Your task to perform on an android device: turn off wifi Image 0: 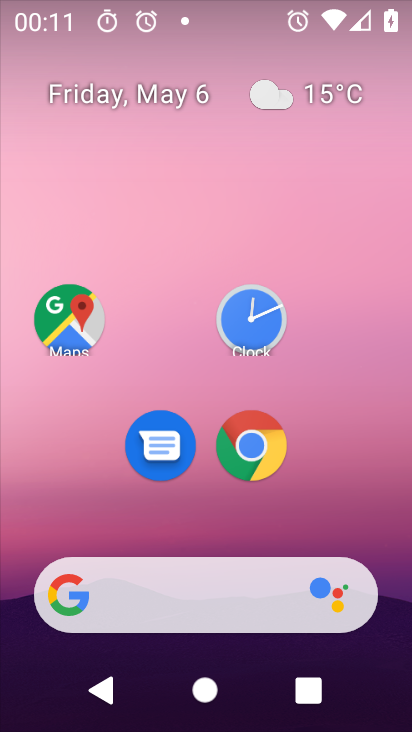
Step 0: drag from (237, 578) to (232, 227)
Your task to perform on an android device: turn off wifi Image 1: 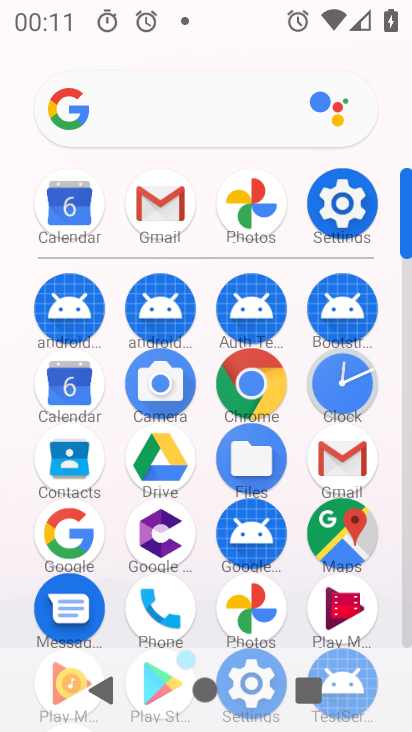
Step 1: click (337, 209)
Your task to perform on an android device: turn off wifi Image 2: 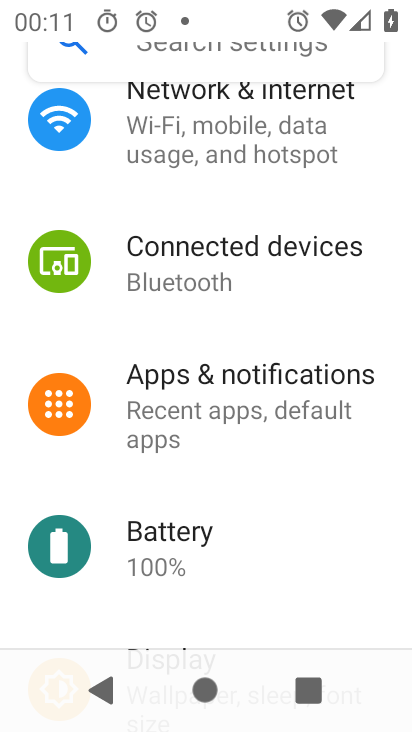
Step 2: click (200, 142)
Your task to perform on an android device: turn off wifi Image 3: 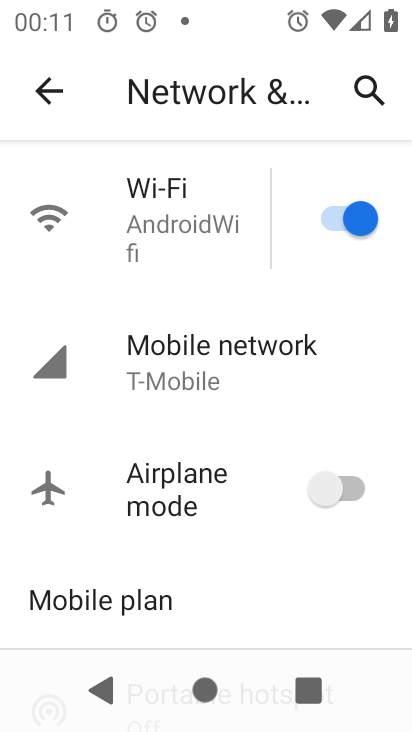
Step 3: click (341, 217)
Your task to perform on an android device: turn off wifi Image 4: 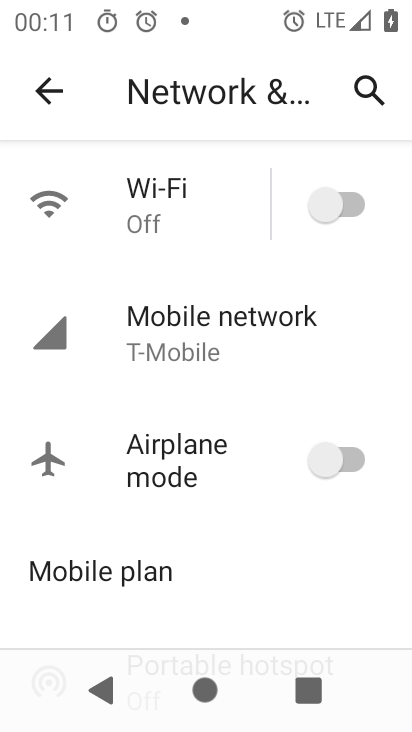
Step 4: task complete